Your task to perform on an android device: What's on my calendar today? Image 0: 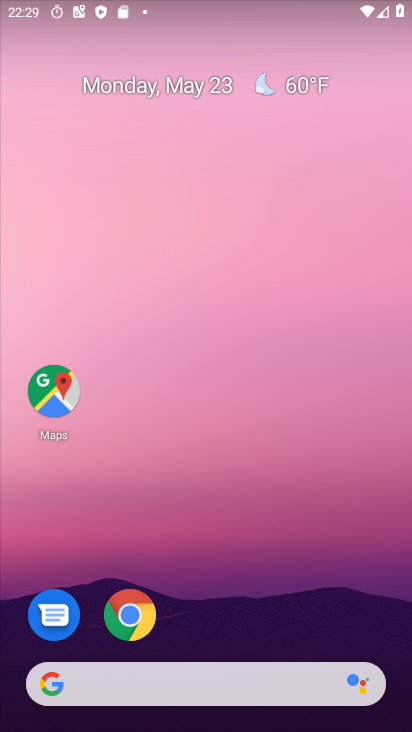
Step 0: drag from (210, 576) to (263, 121)
Your task to perform on an android device: What's on my calendar today? Image 1: 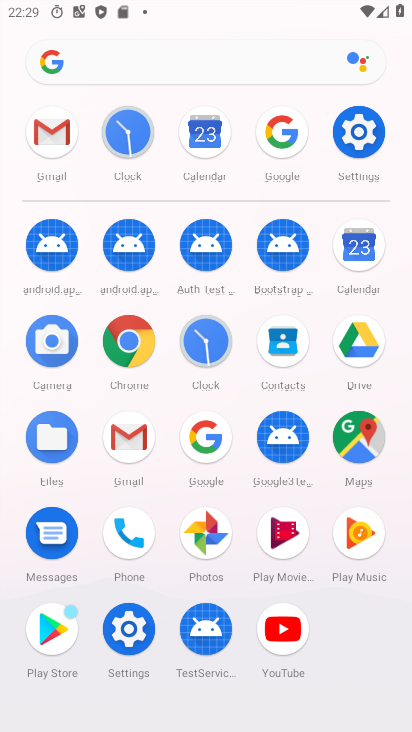
Step 1: click (365, 244)
Your task to perform on an android device: What's on my calendar today? Image 2: 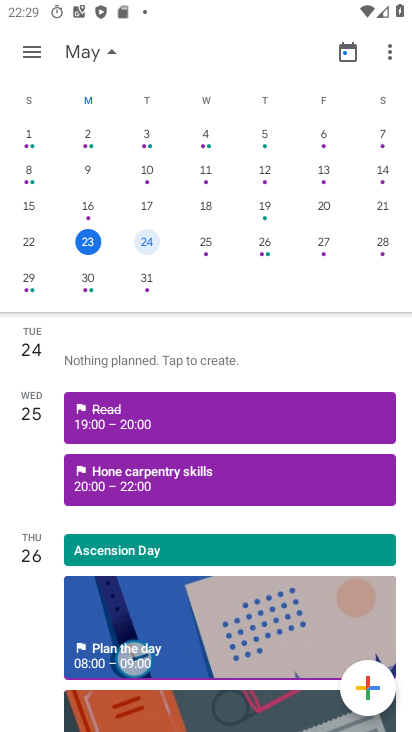
Step 2: click (89, 244)
Your task to perform on an android device: What's on my calendar today? Image 3: 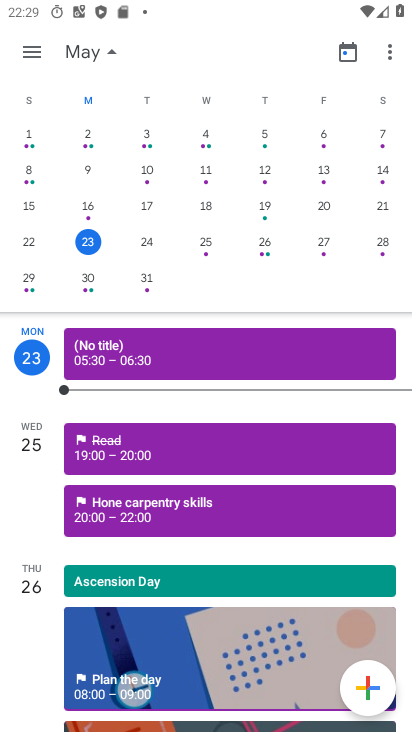
Step 3: task complete